Your task to perform on an android device: turn on bluetooth scan Image 0: 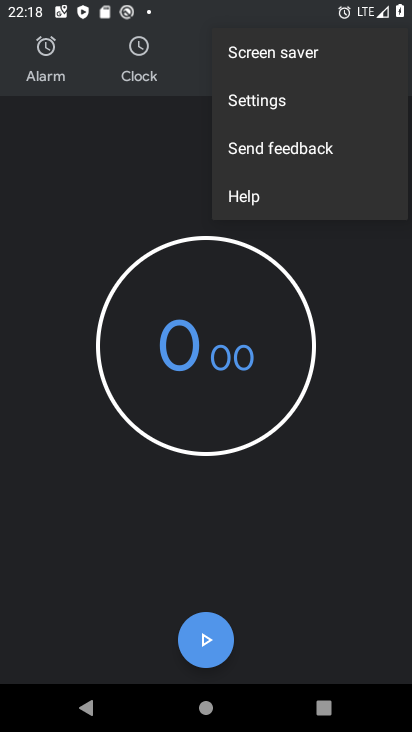
Step 0: press home button
Your task to perform on an android device: turn on bluetooth scan Image 1: 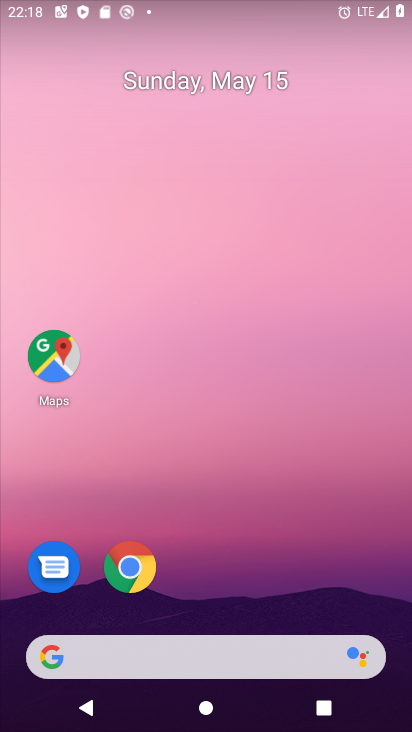
Step 1: drag from (245, 712) to (265, 146)
Your task to perform on an android device: turn on bluetooth scan Image 2: 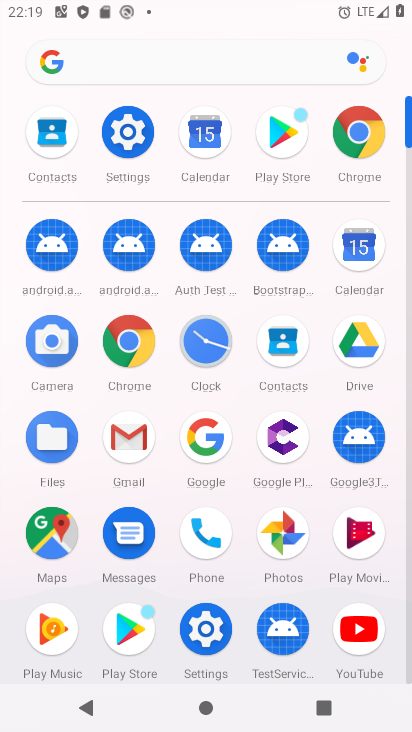
Step 2: click (128, 144)
Your task to perform on an android device: turn on bluetooth scan Image 3: 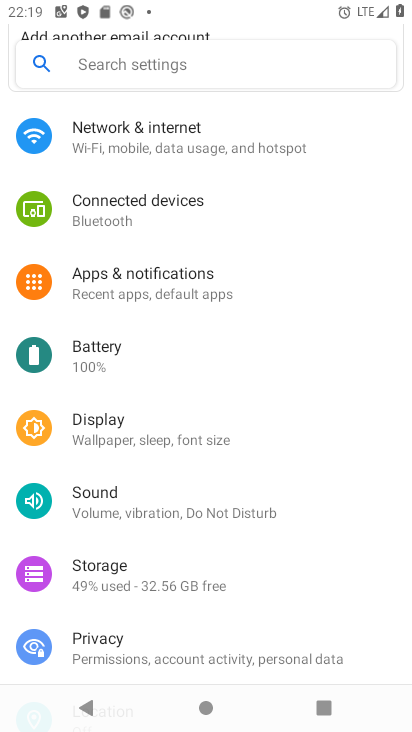
Step 3: drag from (284, 541) to (316, 18)
Your task to perform on an android device: turn on bluetooth scan Image 4: 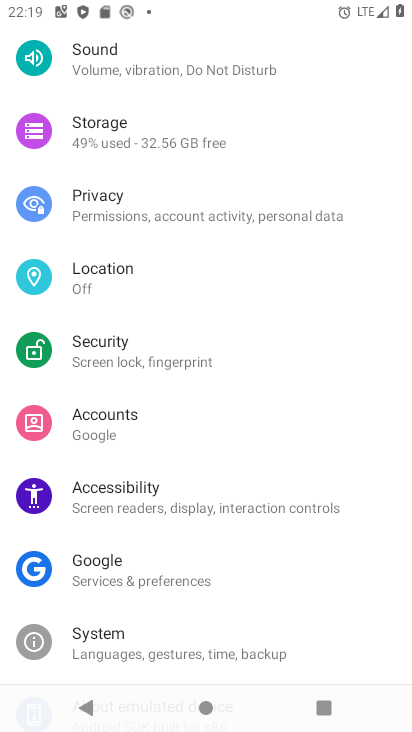
Step 4: click (258, 277)
Your task to perform on an android device: turn on bluetooth scan Image 5: 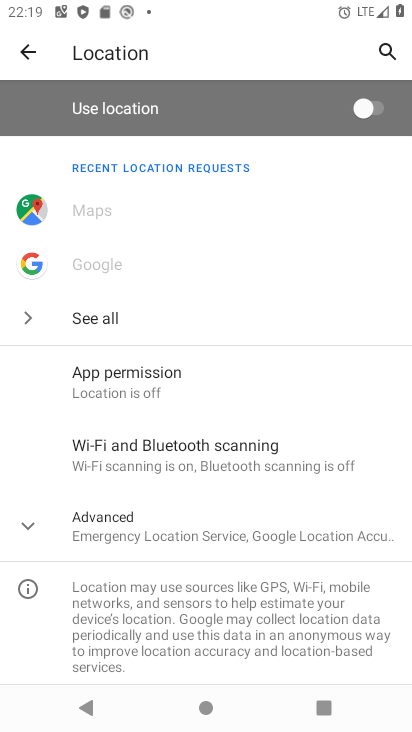
Step 5: click (216, 447)
Your task to perform on an android device: turn on bluetooth scan Image 6: 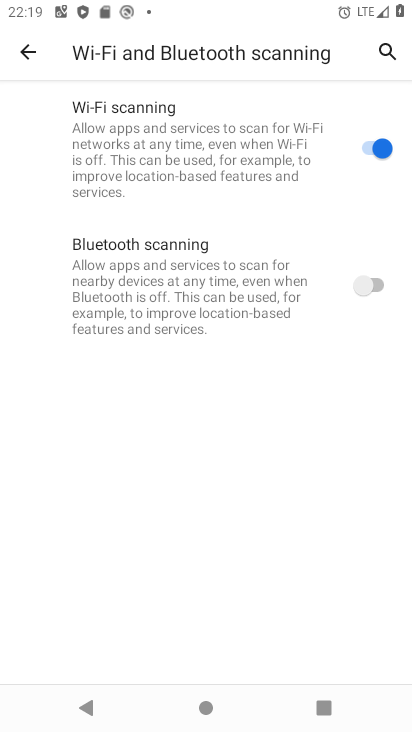
Step 6: click (377, 286)
Your task to perform on an android device: turn on bluetooth scan Image 7: 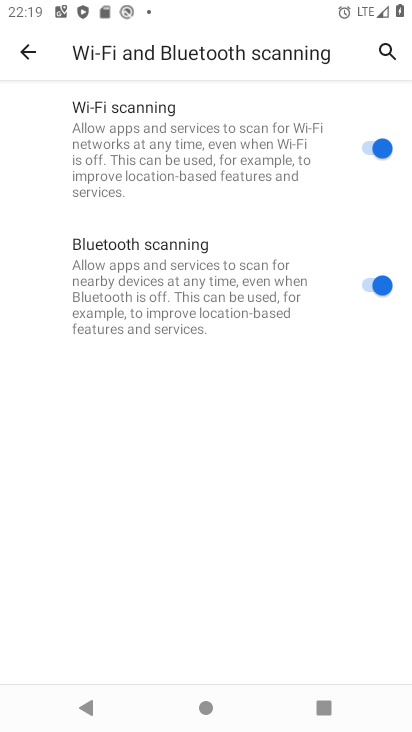
Step 7: task complete